Your task to perform on an android device: Open location settings Image 0: 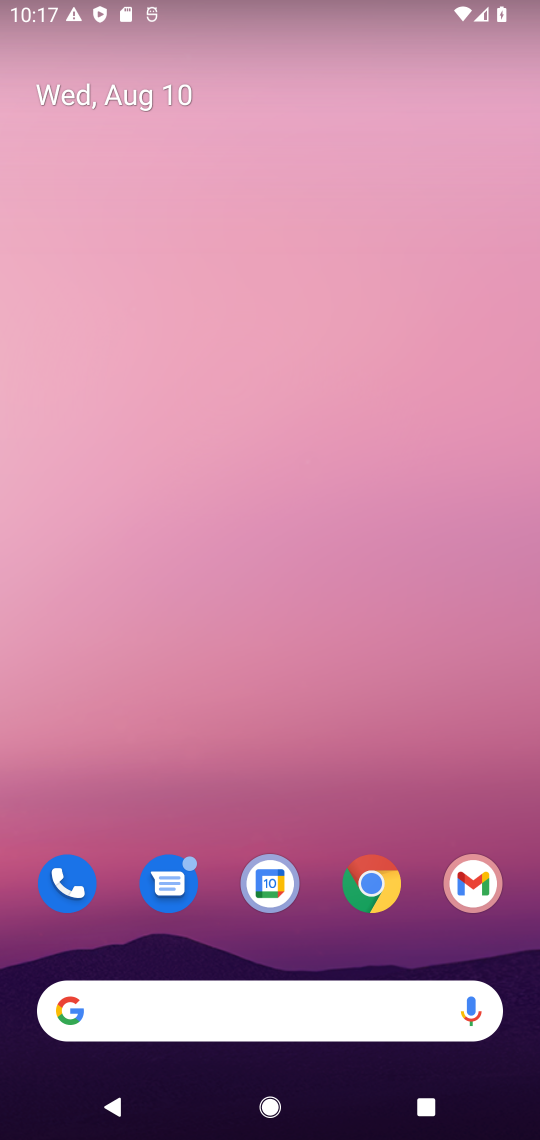
Step 0: drag from (320, 920) to (489, 85)
Your task to perform on an android device: Open location settings Image 1: 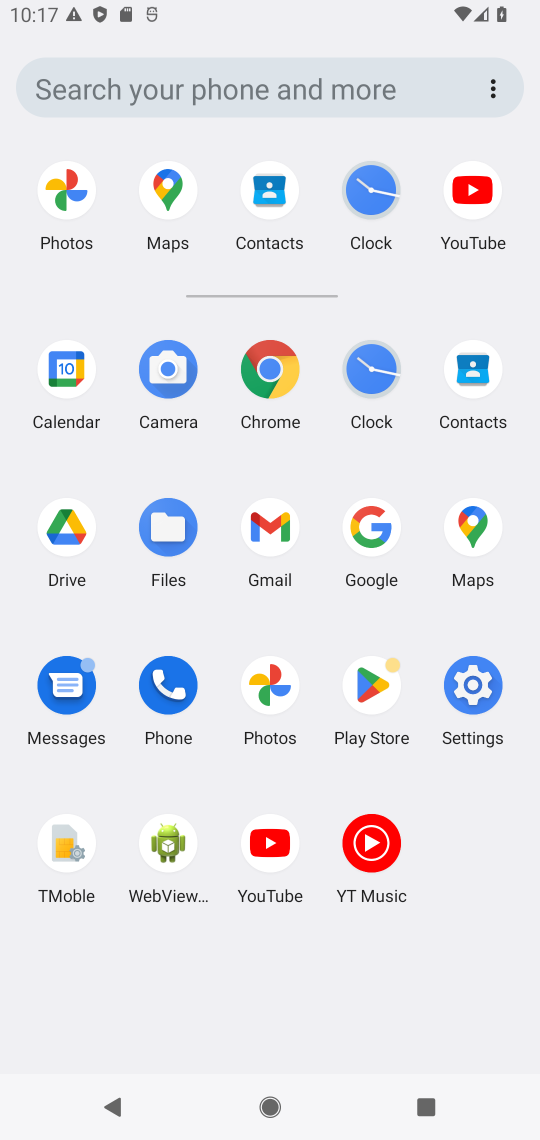
Step 1: click (478, 685)
Your task to perform on an android device: Open location settings Image 2: 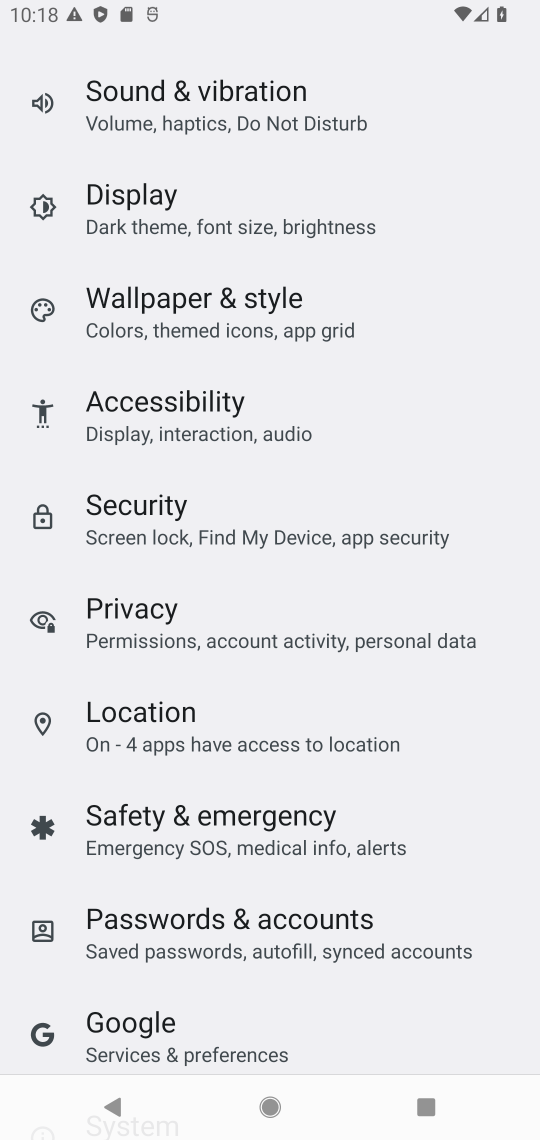
Step 2: click (167, 721)
Your task to perform on an android device: Open location settings Image 3: 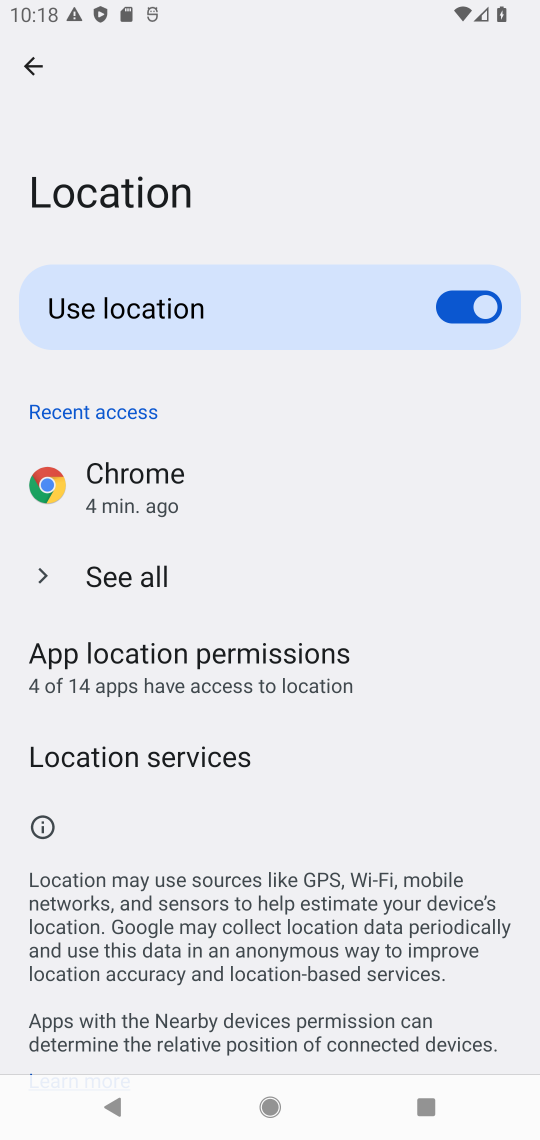
Step 3: task complete